Your task to perform on an android device: see sites visited before in the chrome app Image 0: 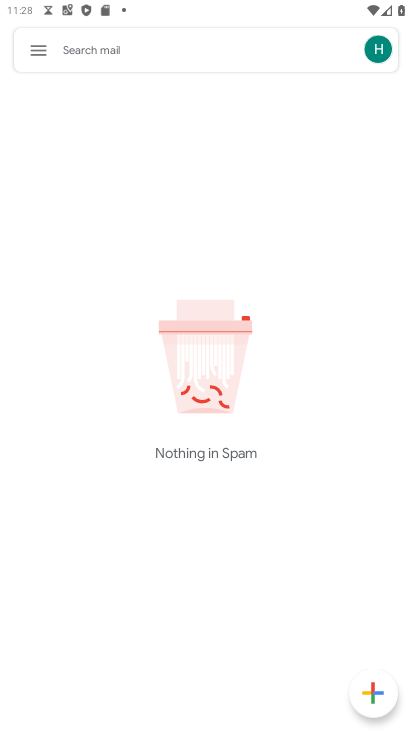
Step 0: press home button
Your task to perform on an android device: see sites visited before in the chrome app Image 1: 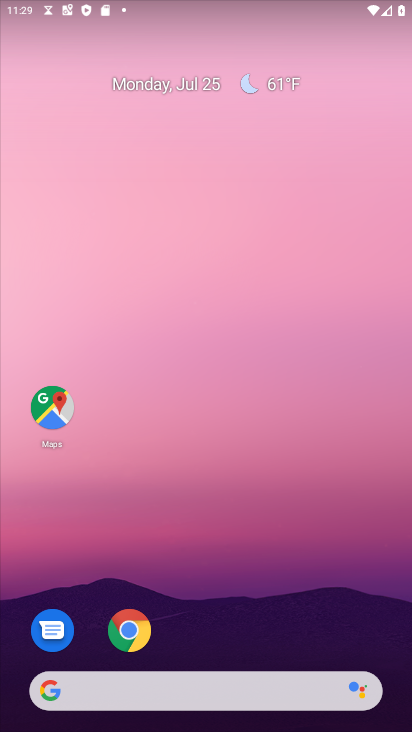
Step 1: click (131, 633)
Your task to perform on an android device: see sites visited before in the chrome app Image 2: 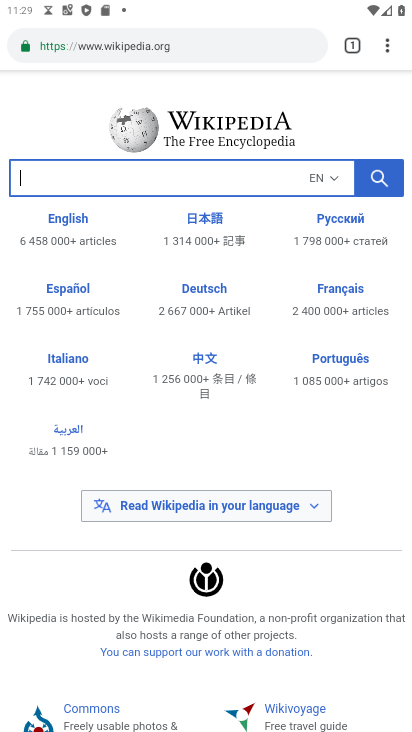
Step 2: click (383, 48)
Your task to perform on an android device: see sites visited before in the chrome app Image 3: 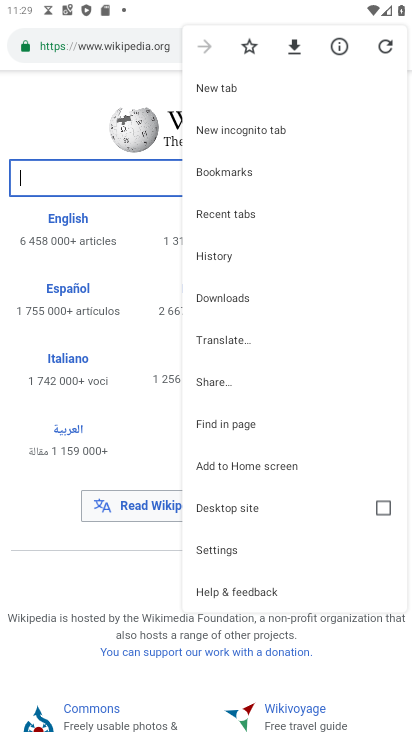
Step 3: click (212, 261)
Your task to perform on an android device: see sites visited before in the chrome app Image 4: 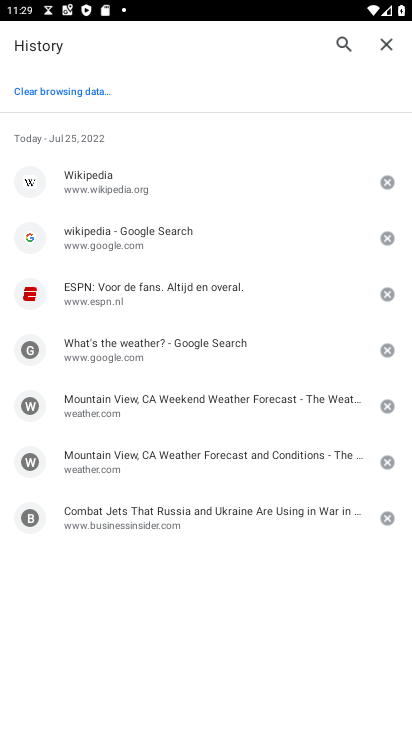
Step 4: task complete